Your task to perform on an android device: manage bookmarks in the chrome app Image 0: 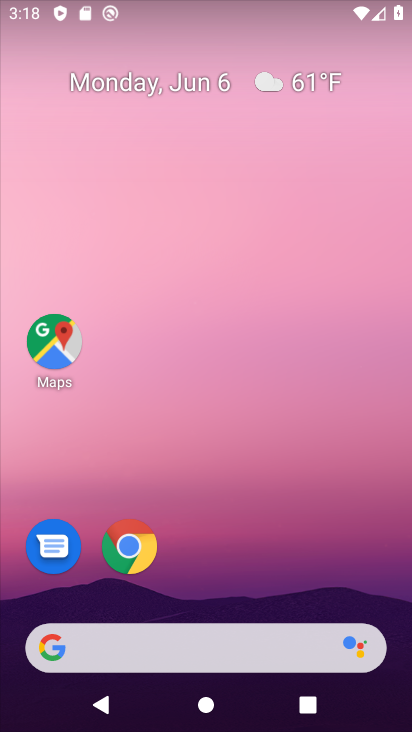
Step 0: click (111, 526)
Your task to perform on an android device: manage bookmarks in the chrome app Image 1: 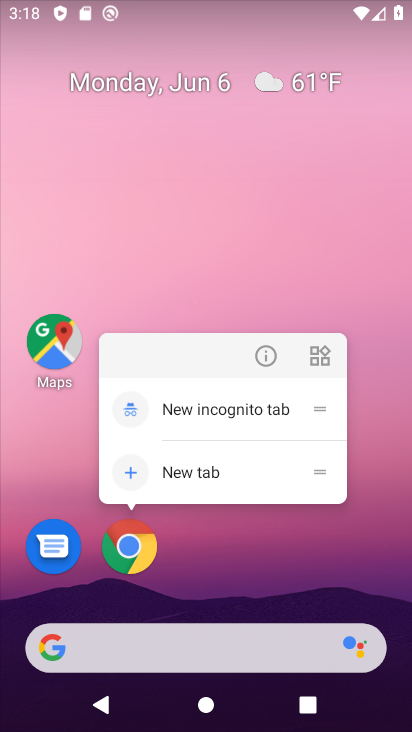
Step 1: click (135, 525)
Your task to perform on an android device: manage bookmarks in the chrome app Image 2: 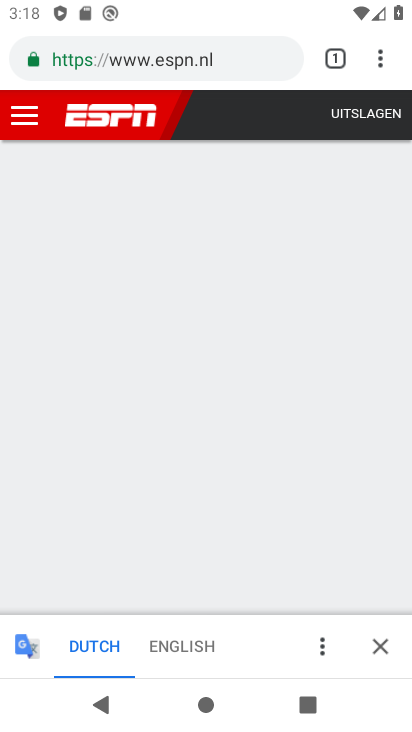
Step 2: task complete